Your task to perform on an android device: Search for seafood restaurants on Google Maps Image 0: 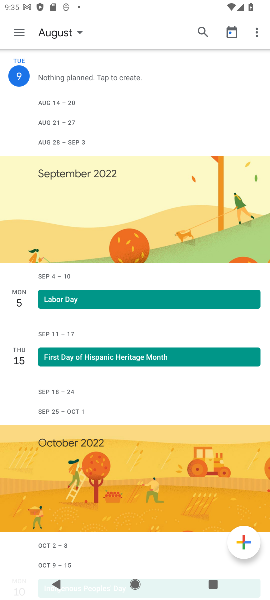
Step 0: press home button
Your task to perform on an android device: Search for seafood restaurants on Google Maps Image 1: 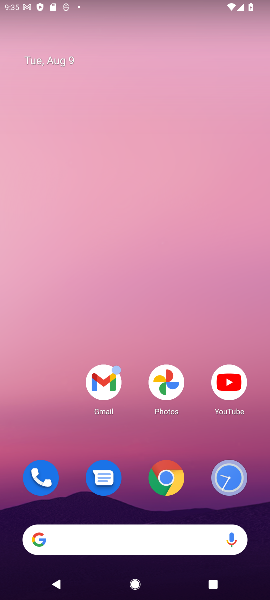
Step 1: click (146, 541)
Your task to perform on an android device: Search for seafood restaurants on Google Maps Image 2: 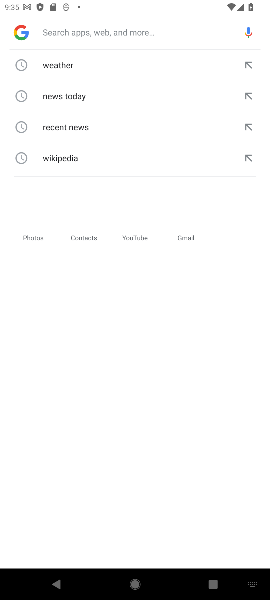
Step 2: type "seafood restaurants "
Your task to perform on an android device: Search for seafood restaurants on Google Maps Image 3: 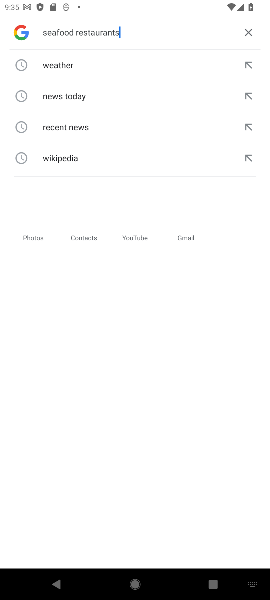
Step 3: press enter
Your task to perform on an android device: Search for seafood restaurants on Google Maps Image 4: 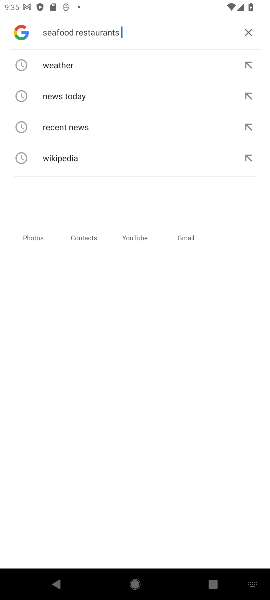
Step 4: type ""
Your task to perform on an android device: Search for seafood restaurants on Google Maps Image 5: 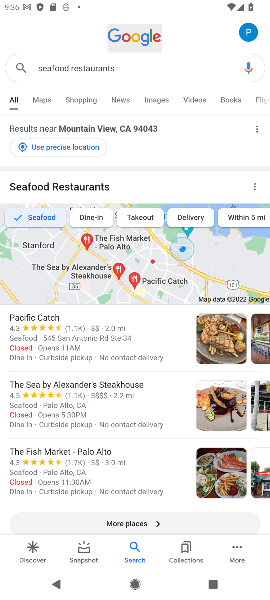
Step 5: task complete